Your task to perform on an android device: turn on translation in the chrome app Image 0: 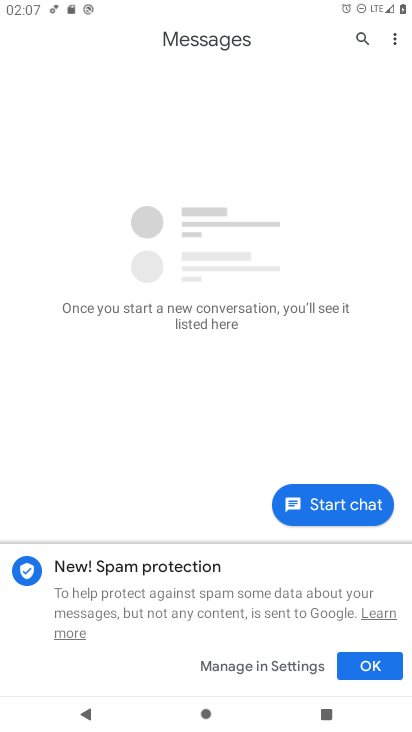
Step 0: press home button
Your task to perform on an android device: turn on translation in the chrome app Image 1: 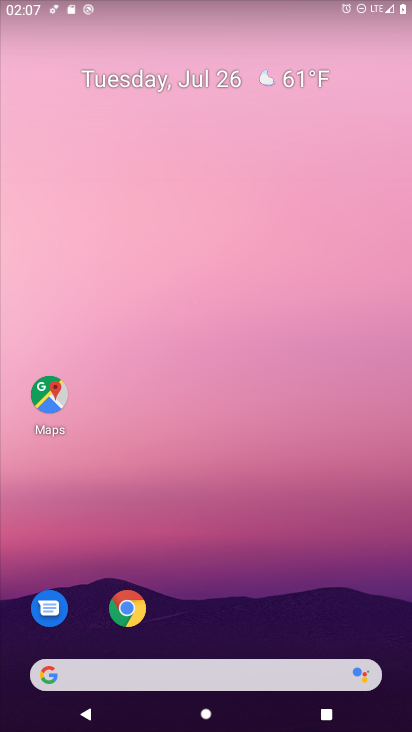
Step 1: click (123, 613)
Your task to perform on an android device: turn on translation in the chrome app Image 2: 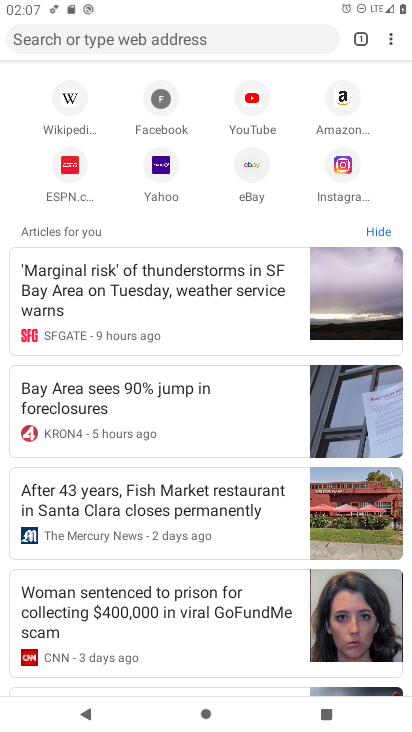
Step 2: click (388, 32)
Your task to perform on an android device: turn on translation in the chrome app Image 3: 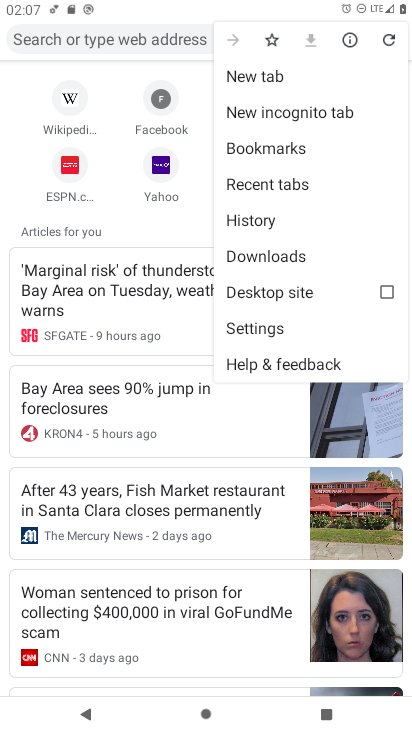
Step 3: click (267, 323)
Your task to perform on an android device: turn on translation in the chrome app Image 4: 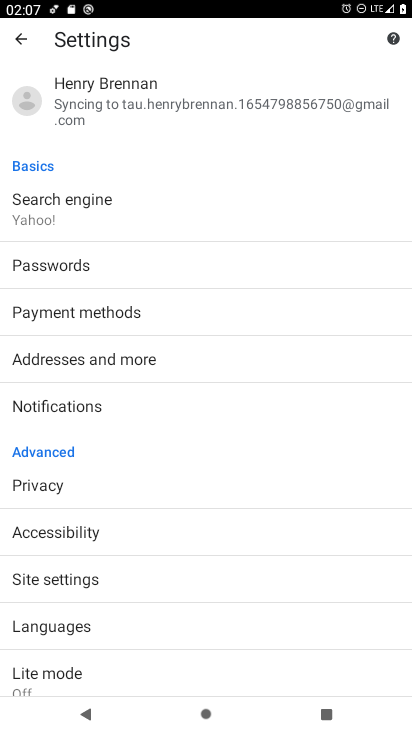
Step 4: click (97, 624)
Your task to perform on an android device: turn on translation in the chrome app Image 5: 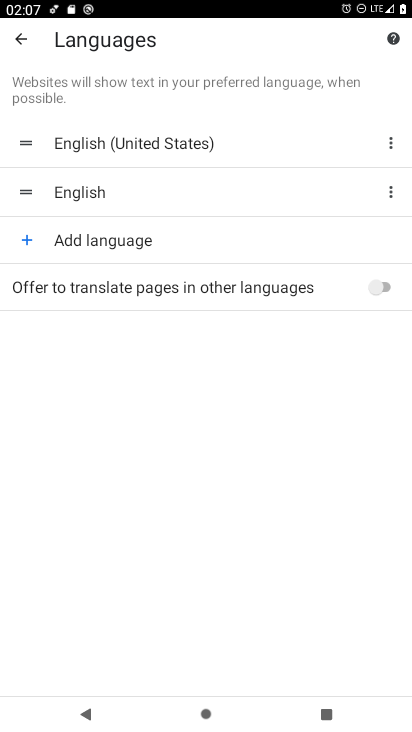
Step 5: click (370, 288)
Your task to perform on an android device: turn on translation in the chrome app Image 6: 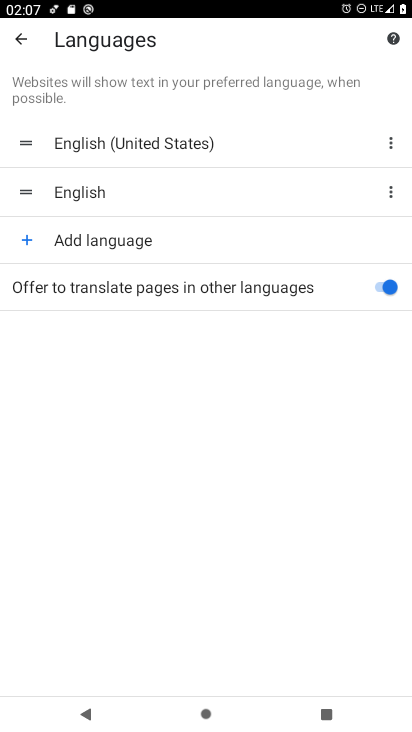
Step 6: task complete